Your task to perform on an android device: find photos in the google photos app Image 0: 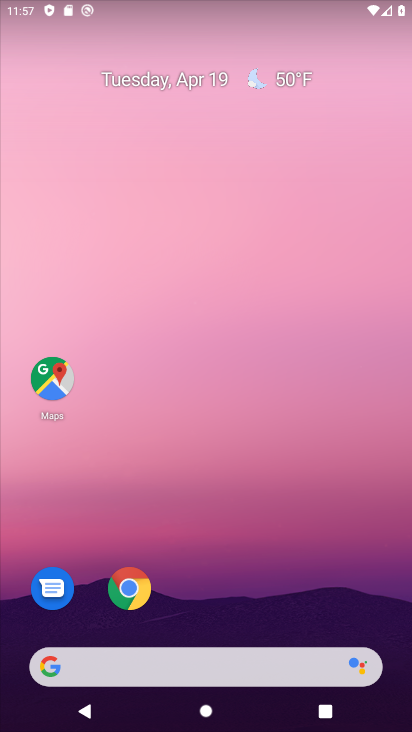
Step 0: drag from (228, 617) to (295, 72)
Your task to perform on an android device: find photos in the google photos app Image 1: 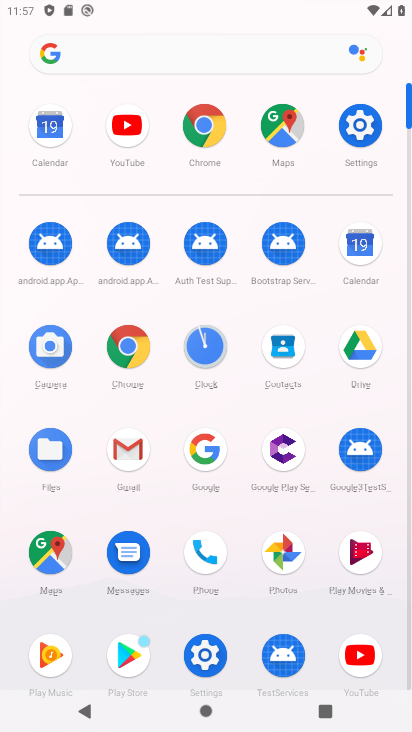
Step 1: click (278, 546)
Your task to perform on an android device: find photos in the google photos app Image 2: 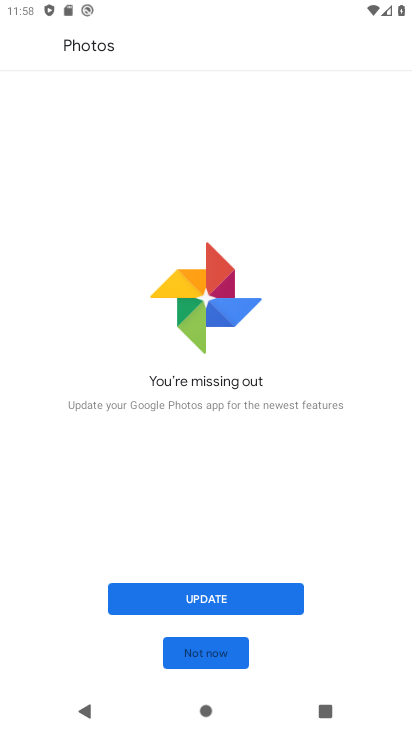
Step 2: click (207, 595)
Your task to perform on an android device: find photos in the google photos app Image 3: 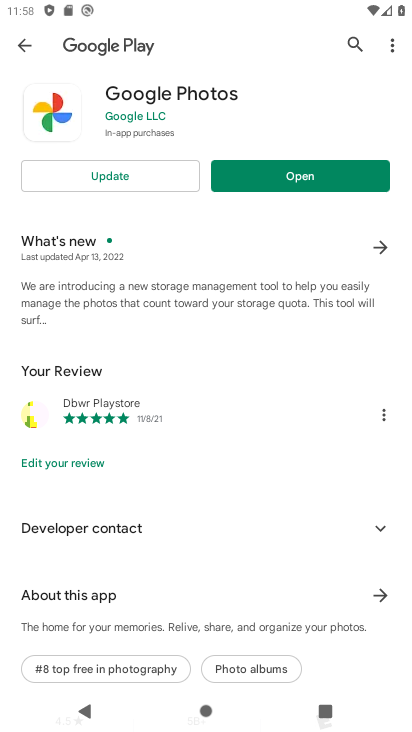
Step 3: click (107, 172)
Your task to perform on an android device: find photos in the google photos app Image 4: 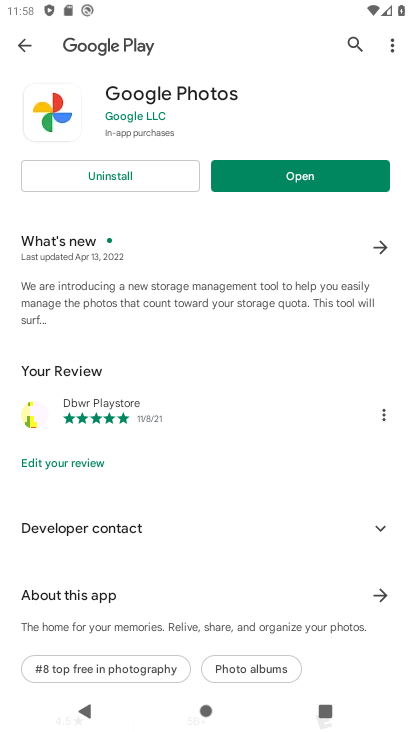
Step 4: click (284, 178)
Your task to perform on an android device: find photos in the google photos app Image 5: 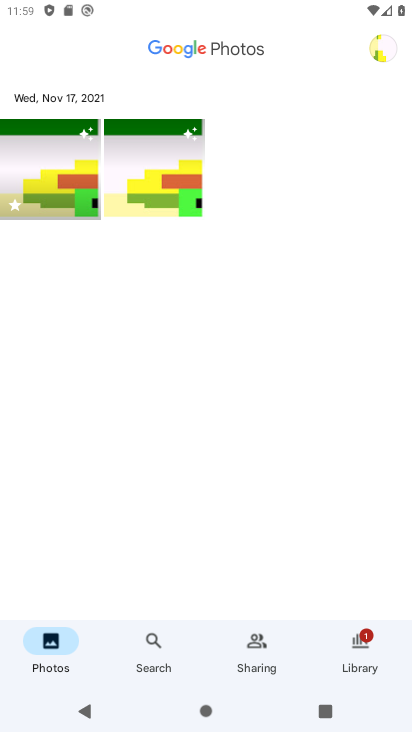
Step 5: click (51, 191)
Your task to perform on an android device: find photos in the google photos app Image 6: 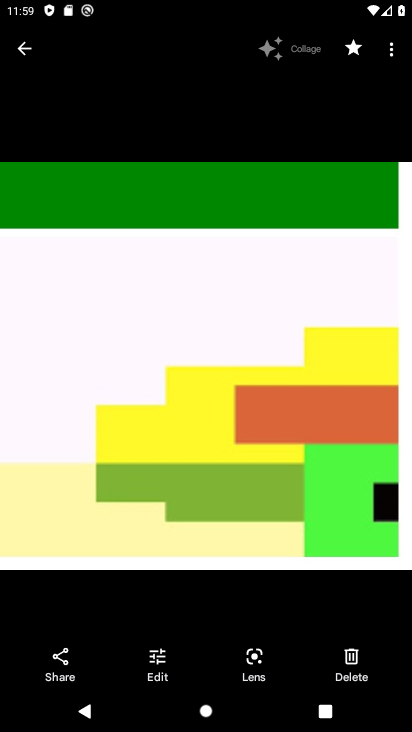
Step 6: task complete